Your task to perform on an android device: change notifications settings Image 0: 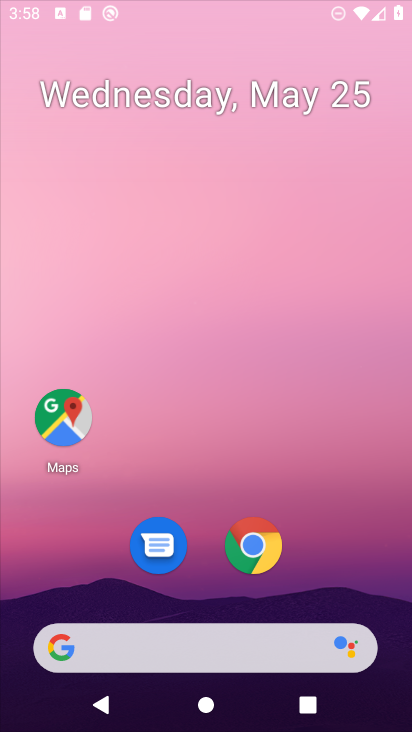
Step 0: drag from (367, 550) to (356, 167)
Your task to perform on an android device: change notifications settings Image 1: 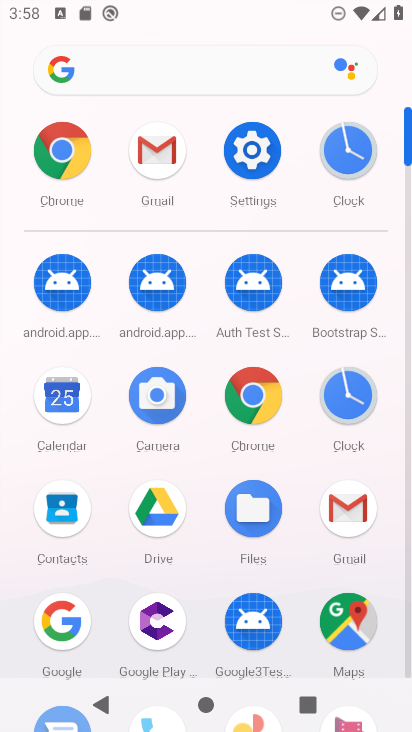
Step 1: click (255, 191)
Your task to perform on an android device: change notifications settings Image 2: 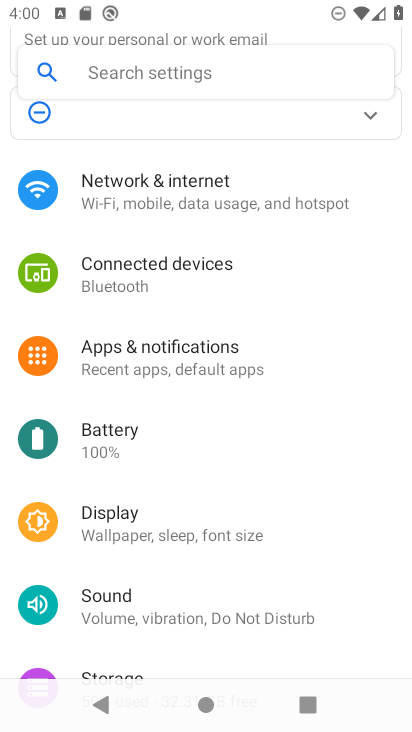
Step 2: click (204, 338)
Your task to perform on an android device: change notifications settings Image 3: 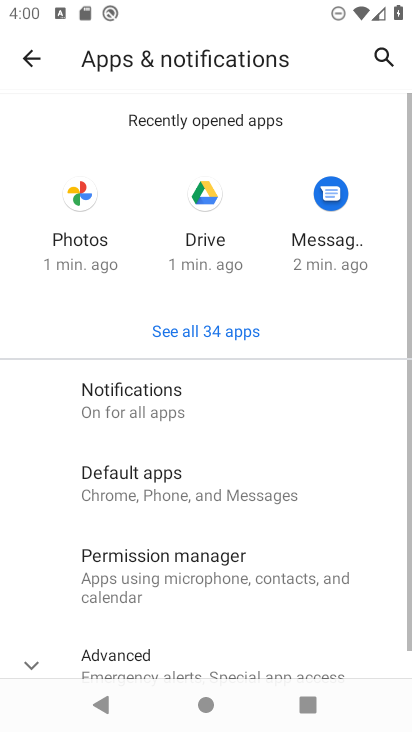
Step 3: click (235, 408)
Your task to perform on an android device: change notifications settings Image 4: 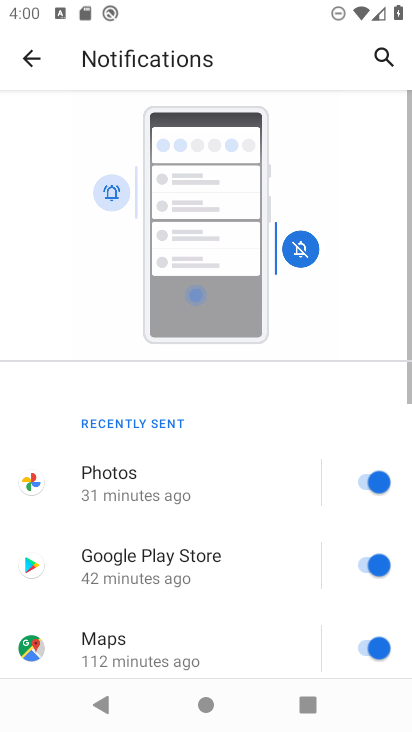
Step 4: task complete